Your task to perform on an android device: turn off picture-in-picture Image 0: 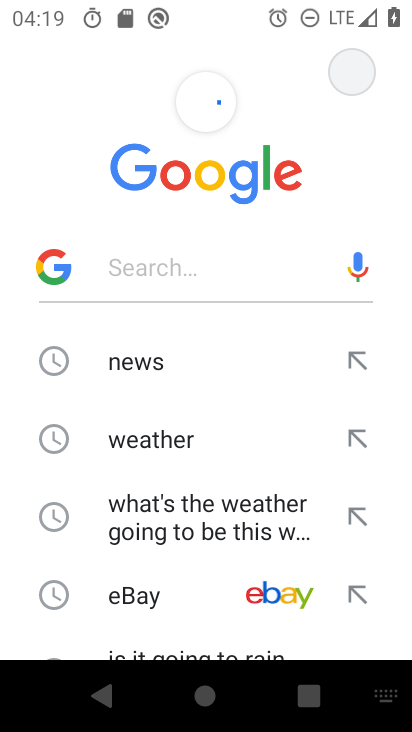
Step 0: press home button
Your task to perform on an android device: turn off picture-in-picture Image 1: 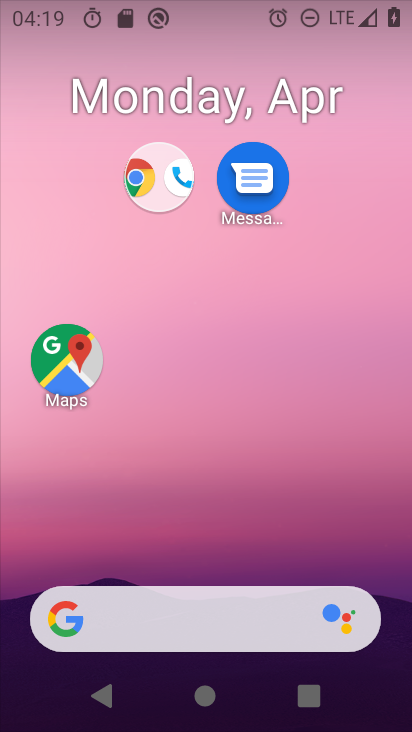
Step 1: drag from (298, 436) to (267, 14)
Your task to perform on an android device: turn off picture-in-picture Image 2: 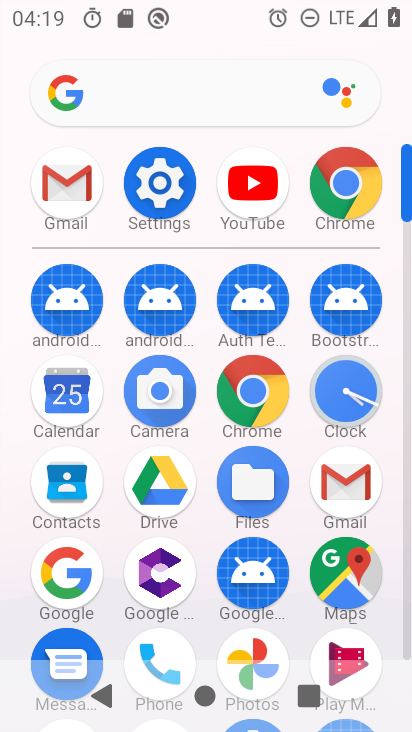
Step 2: drag from (294, 637) to (289, 152)
Your task to perform on an android device: turn off picture-in-picture Image 3: 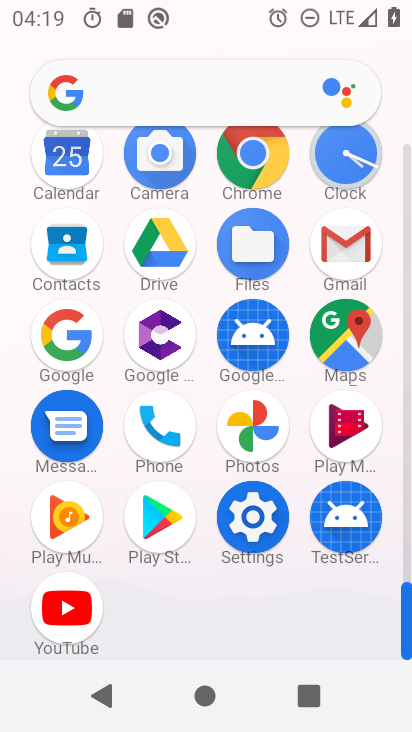
Step 3: click (260, 535)
Your task to perform on an android device: turn off picture-in-picture Image 4: 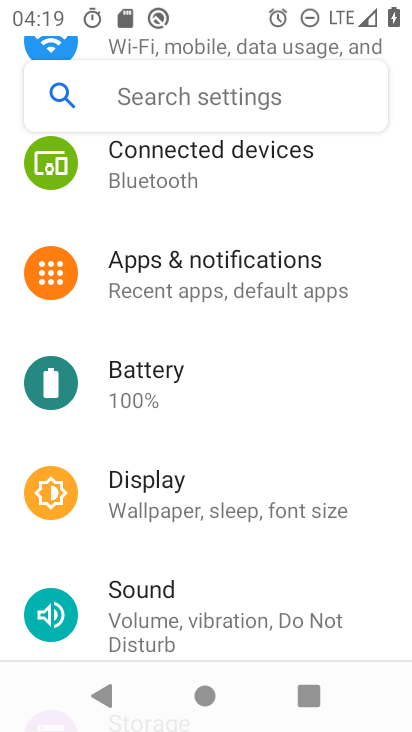
Step 4: drag from (243, 197) to (233, 568)
Your task to perform on an android device: turn off picture-in-picture Image 5: 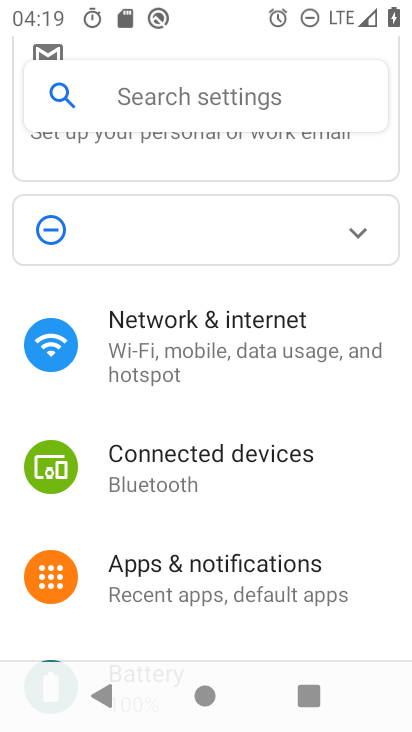
Step 5: click (276, 584)
Your task to perform on an android device: turn off picture-in-picture Image 6: 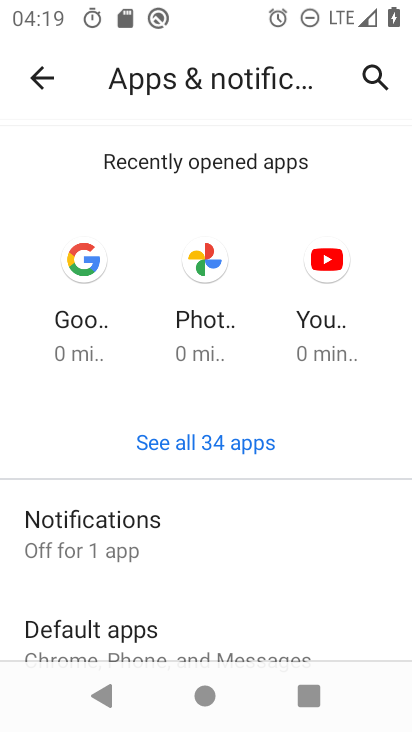
Step 6: drag from (242, 642) to (235, 172)
Your task to perform on an android device: turn off picture-in-picture Image 7: 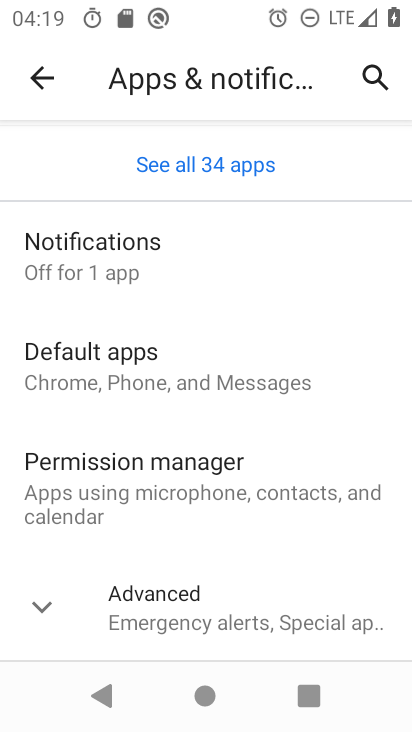
Step 7: click (226, 629)
Your task to perform on an android device: turn off picture-in-picture Image 8: 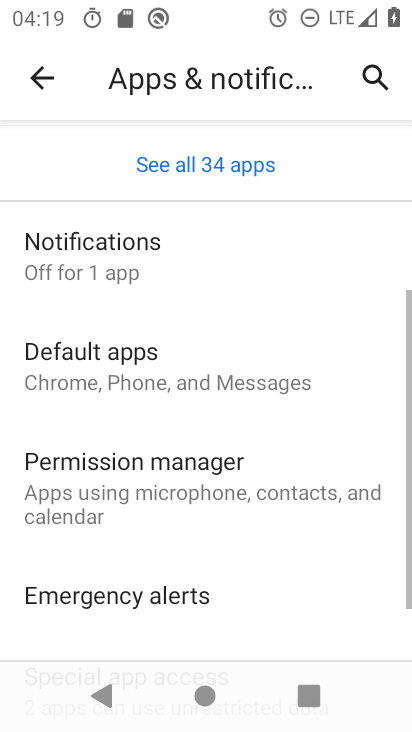
Step 8: drag from (227, 626) to (270, 173)
Your task to perform on an android device: turn off picture-in-picture Image 9: 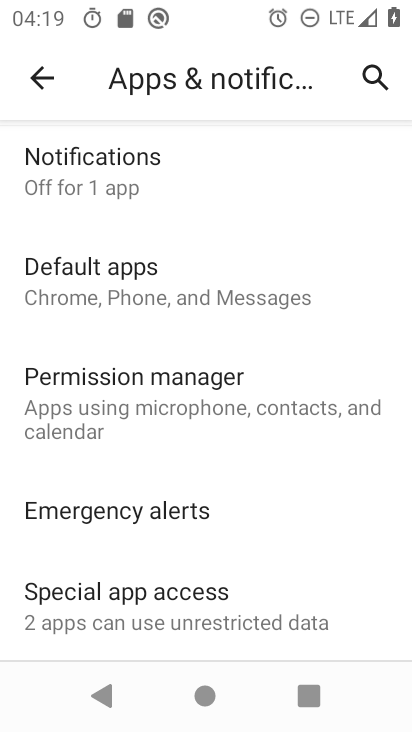
Step 9: click (109, 612)
Your task to perform on an android device: turn off picture-in-picture Image 10: 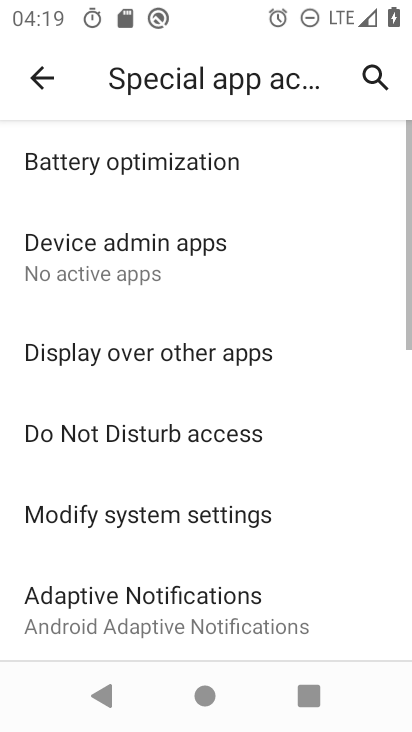
Step 10: drag from (110, 609) to (104, 132)
Your task to perform on an android device: turn off picture-in-picture Image 11: 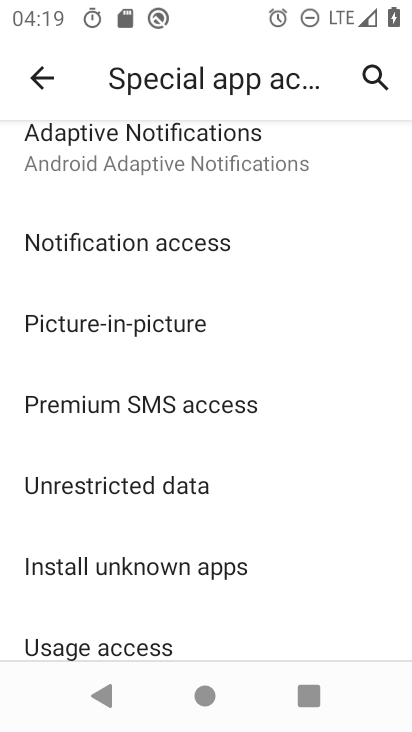
Step 11: click (159, 324)
Your task to perform on an android device: turn off picture-in-picture Image 12: 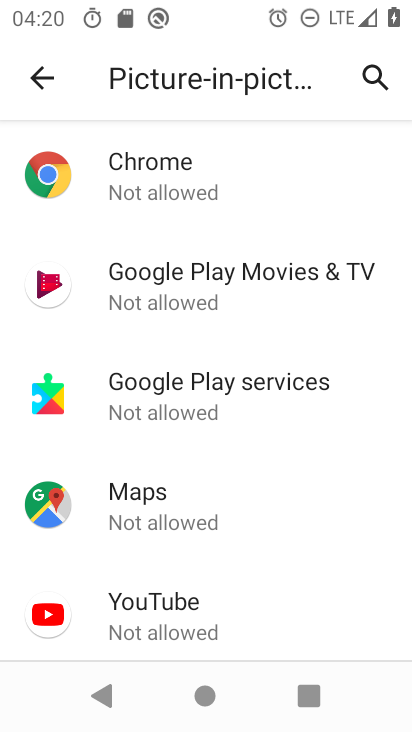
Step 12: task complete